Your task to perform on an android device: Show me the alarms in the clock app Image 0: 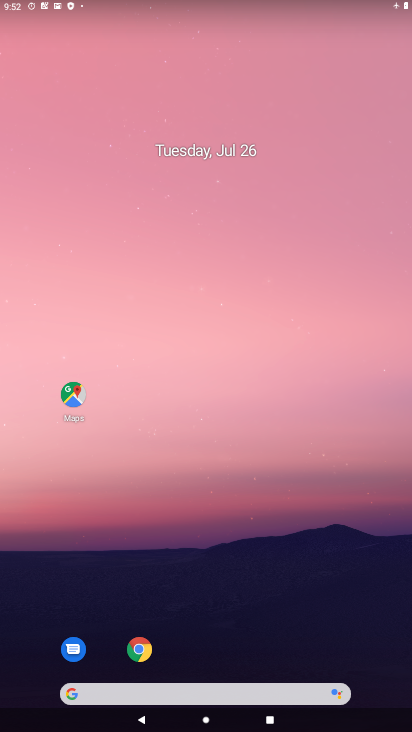
Step 0: drag from (176, 668) to (221, 101)
Your task to perform on an android device: Show me the alarms in the clock app Image 1: 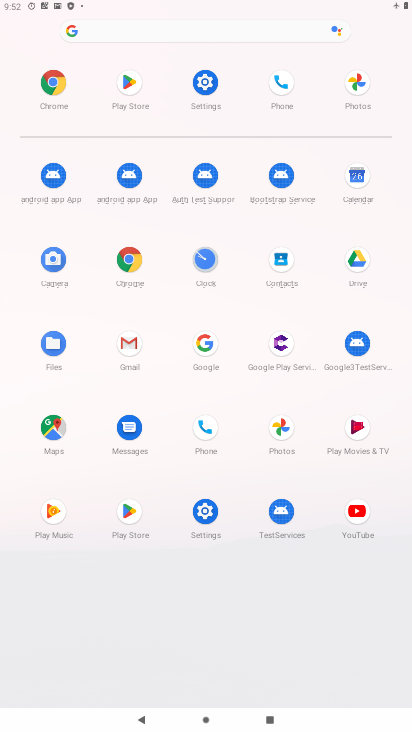
Step 1: click (203, 249)
Your task to perform on an android device: Show me the alarms in the clock app Image 2: 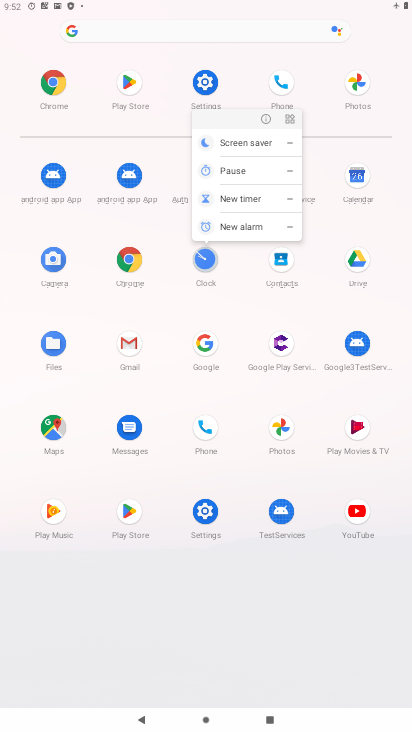
Step 2: click (261, 120)
Your task to perform on an android device: Show me the alarms in the clock app Image 3: 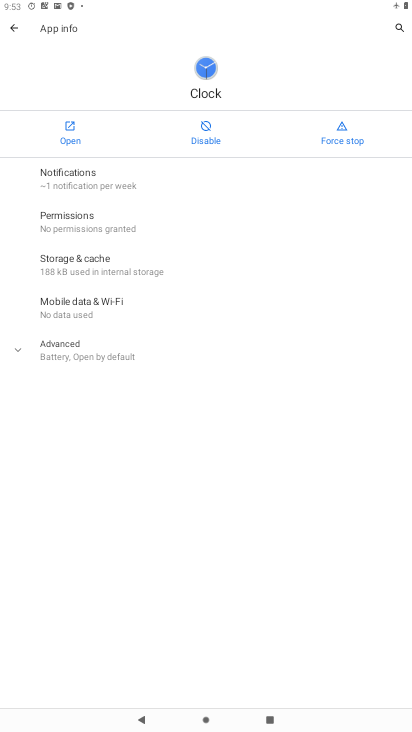
Step 3: click (79, 139)
Your task to perform on an android device: Show me the alarms in the clock app Image 4: 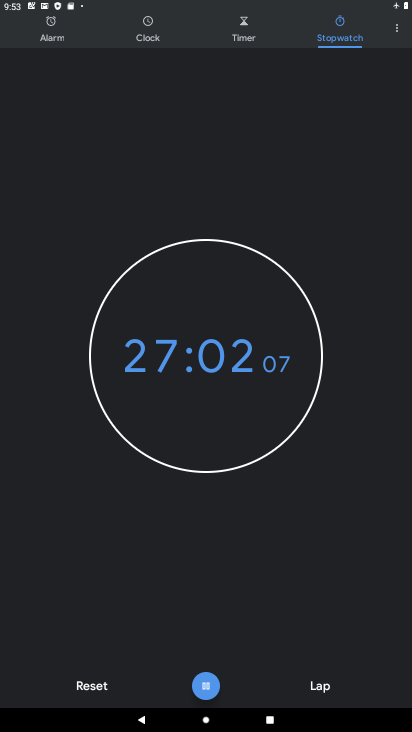
Step 4: click (41, 28)
Your task to perform on an android device: Show me the alarms in the clock app Image 5: 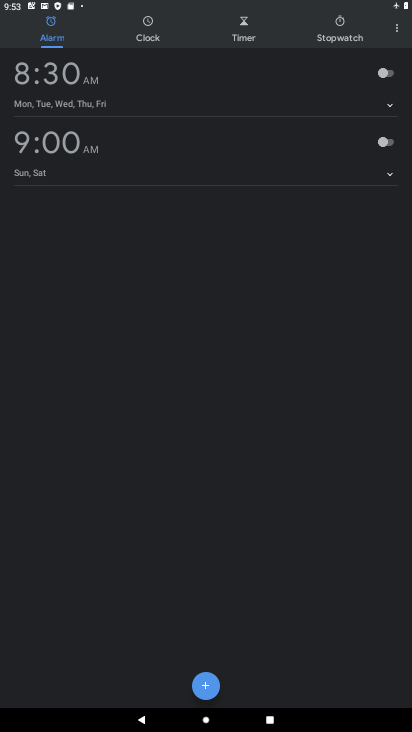
Step 5: task complete